Your task to perform on an android device: toggle translation in the chrome app Image 0: 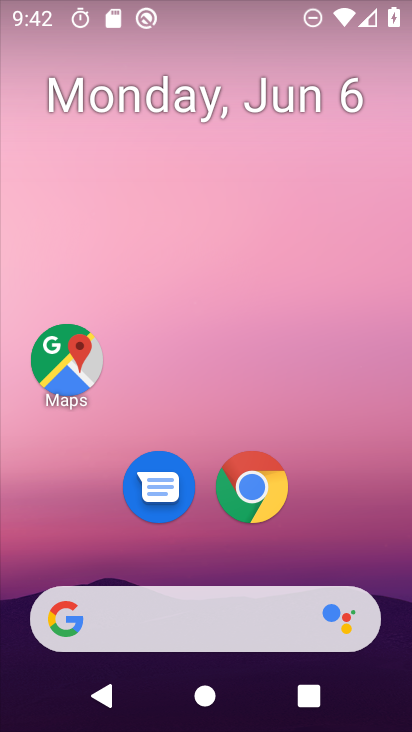
Step 0: drag from (381, 623) to (315, 33)
Your task to perform on an android device: toggle translation in the chrome app Image 1: 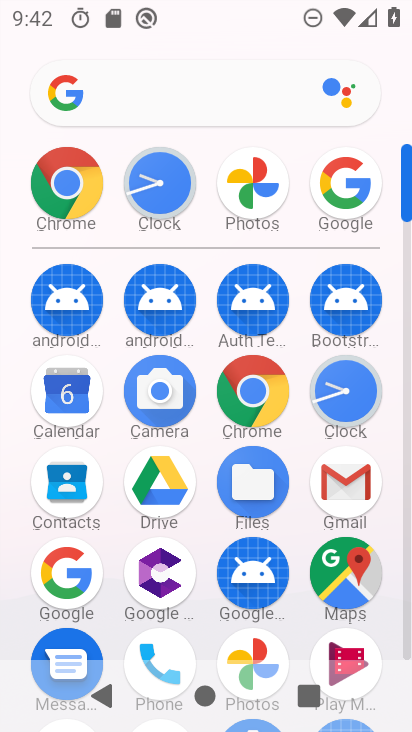
Step 1: click (247, 412)
Your task to perform on an android device: toggle translation in the chrome app Image 2: 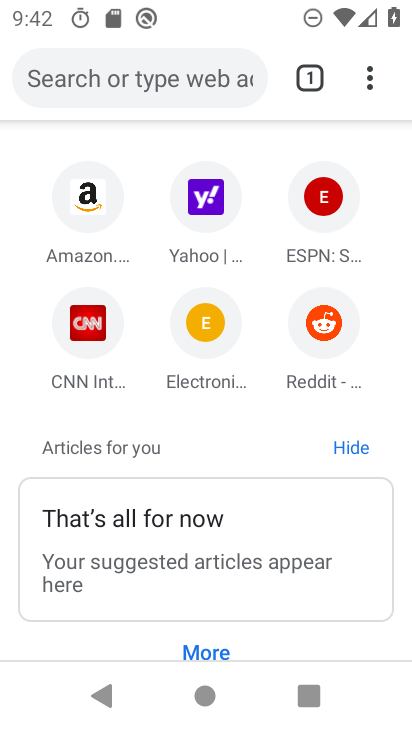
Step 2: click (376, 74)
Your task to perform on an android device: toggle translation in the chrome app Image 3: 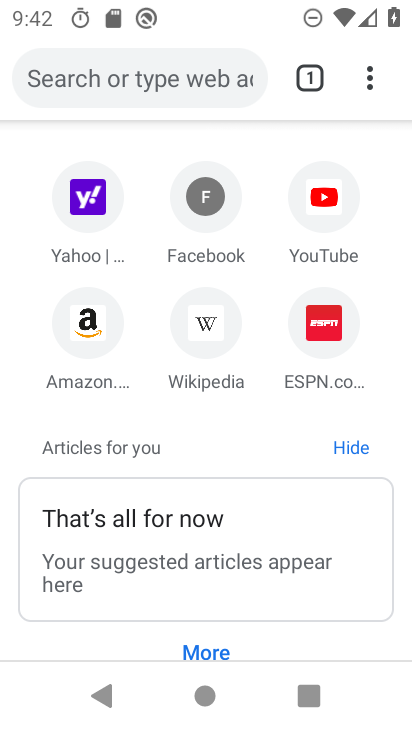
Step 3: click (371, 68)
Your task to perform on an android device: toggle translation in the chrome app Image 4: 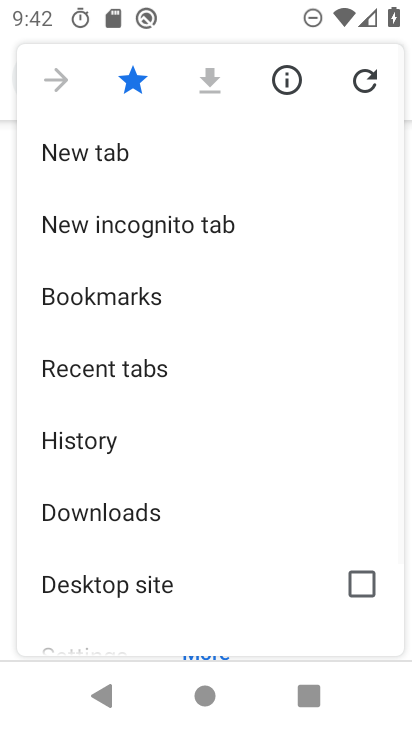
Step 4: drag from (119, 590) to (164, 161)
Your task to perform on an android device: toggle translation in the chrome app Image 5: 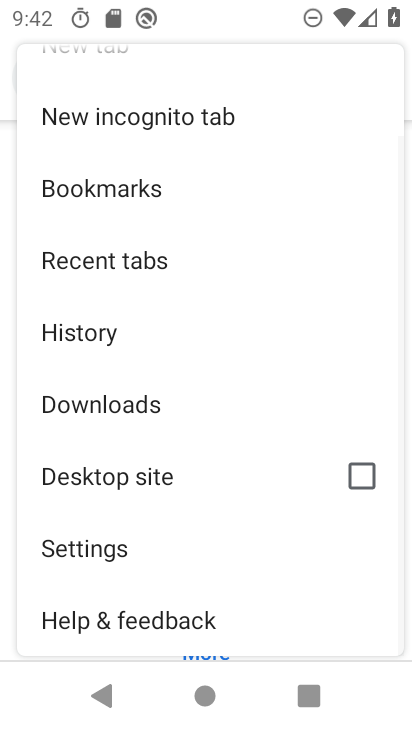
Step 5: click (114, 557)
Your task to perform on an android device: toggle translation in the chrome app Image 6: 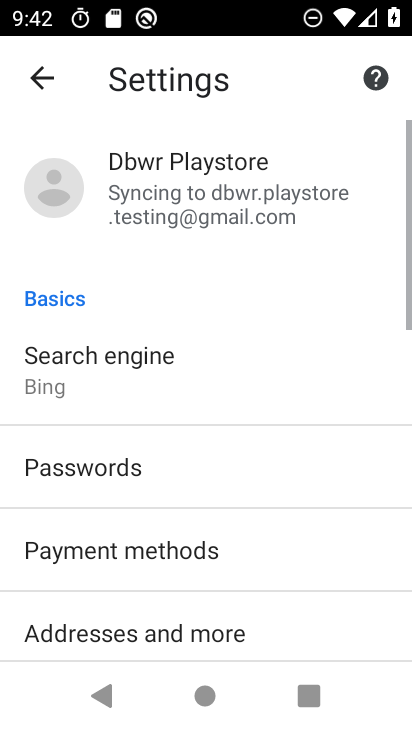
Step 6: drag from (141, 605) to (158, 201)
Your task to perform on an android device: toggle translation in the chrome app Image 7: 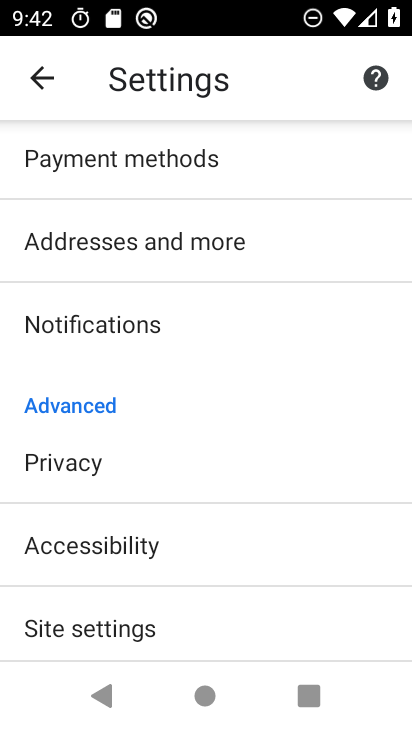
Step 7: drag from (140, 629) to (207, 213)
Your task to perform on an android device: toggle translation in the chrome app Image 8: 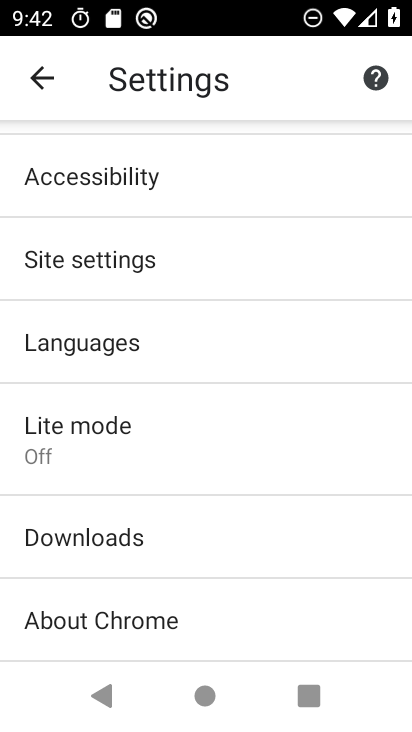
Step 8: click (170, 344)
Your task to perform on an android device: toggle translation in the chrome app Image 9: 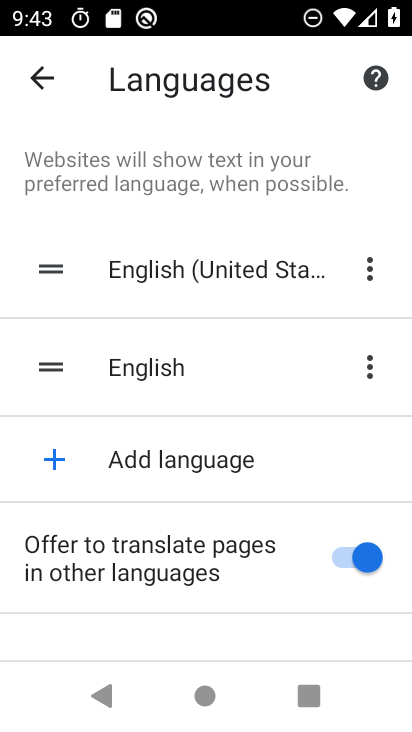
Step 9: task complete